Your task to perform on an android device: What's on my calendar today? Image 0: 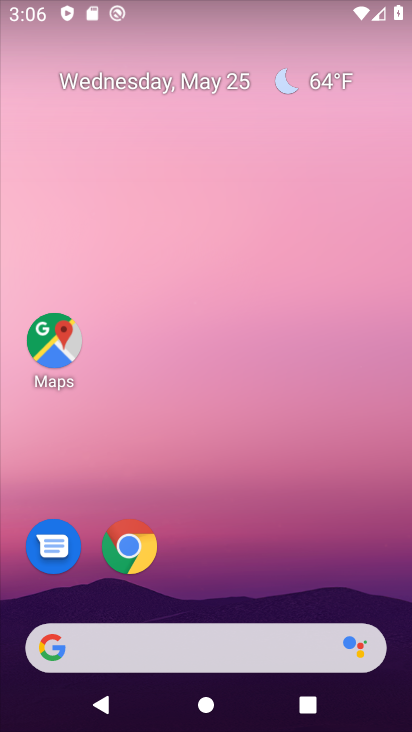
Step 0: drag from (227, 558) to (127, 154)
Your task to perform on an android device: What's on my calendar today? Image 1: 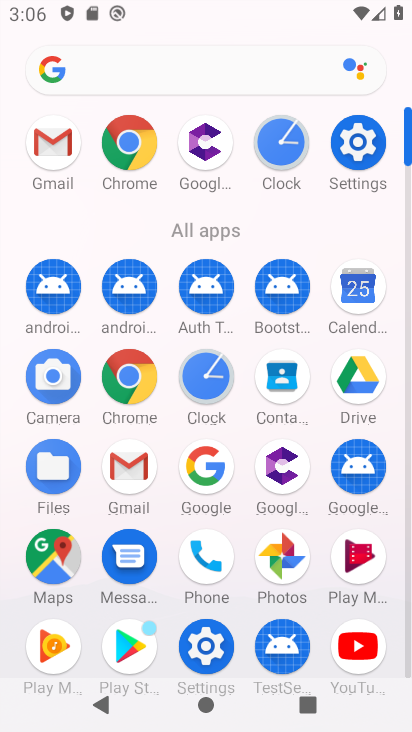
Step 1: click (371, 297)
Your task to perform on an android device: What's on my calendar today? Image 2: 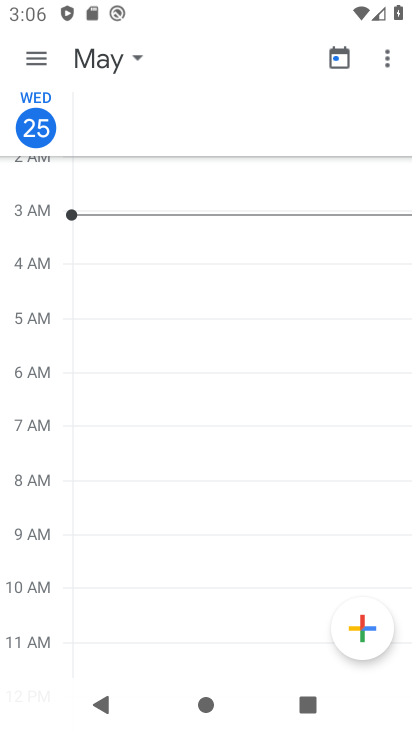
Step 2: click (102, 62)
Your task to perform on an android device: What's on my calendar today? Image 3: 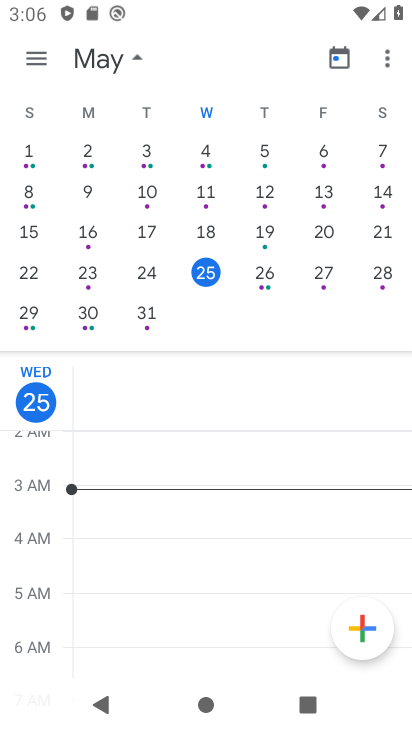
Step 3: click (45, 64)
Your task to perform on an android device: What's on my calendar today? Image 4: 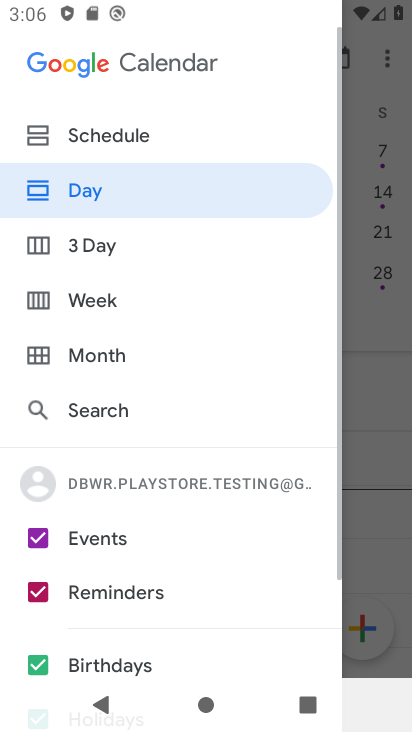
Step 4: click (85, 124)
Your task to perform on an android device: What's on my calendar today? Image 5: 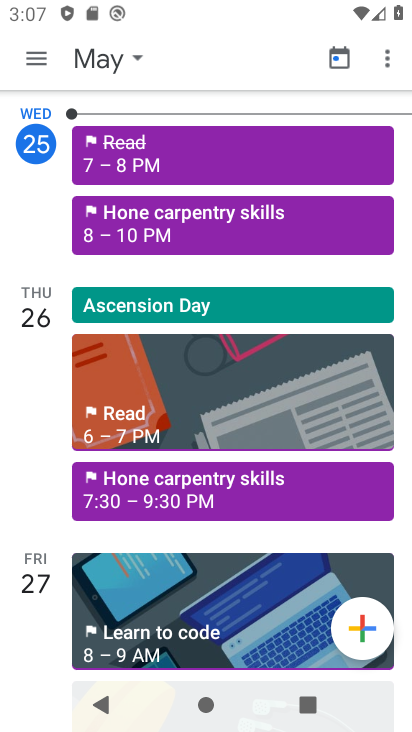
Step 5: task complete